Your task to perform on an android device: turn off javascript in the chrome app Image 0: 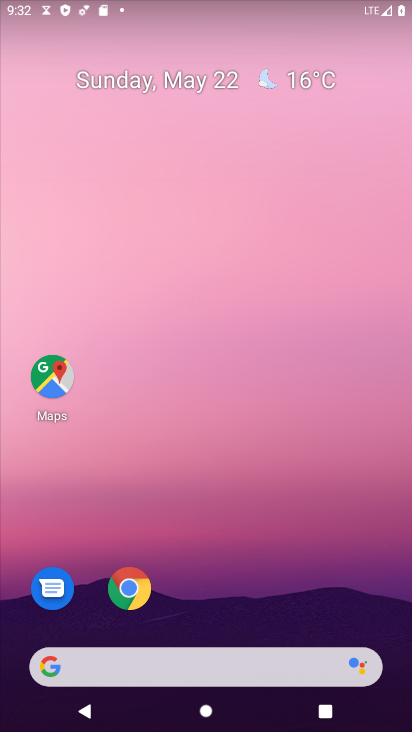
Step 0: click (128, 604)
Your task to perform on an android device: turn off javascript in the chrome app Image 1: 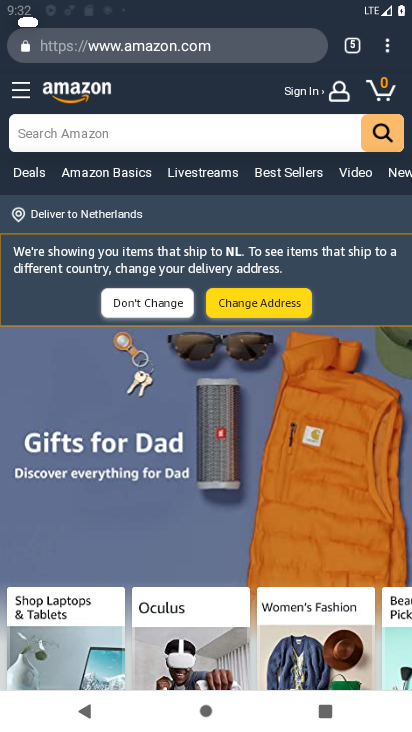
Step 1: click (390, 48)
Your task to perform on an android device: turn off javascript in the chrome app Image 2: 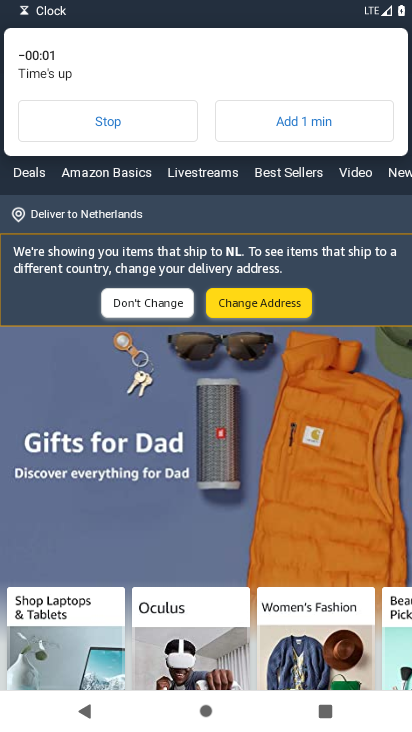
Step 2: click (151, 124)
Your task to perform on an android device: turn off javascript in the chrome app Image 3: 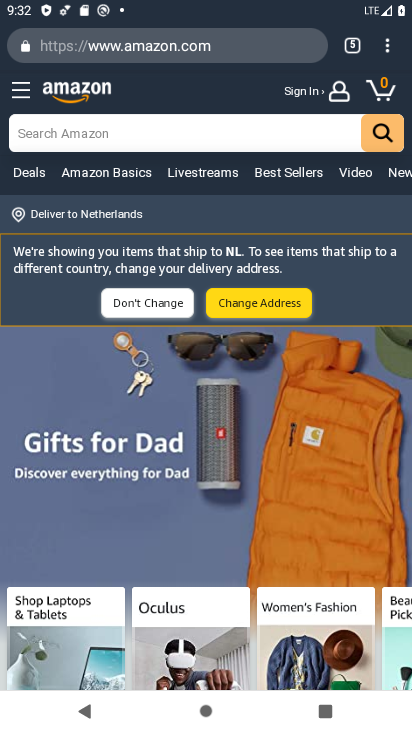
Step 3: click (376, 40)
Your task to perform on an android device: turn off javascript in the chrome app Image 4: 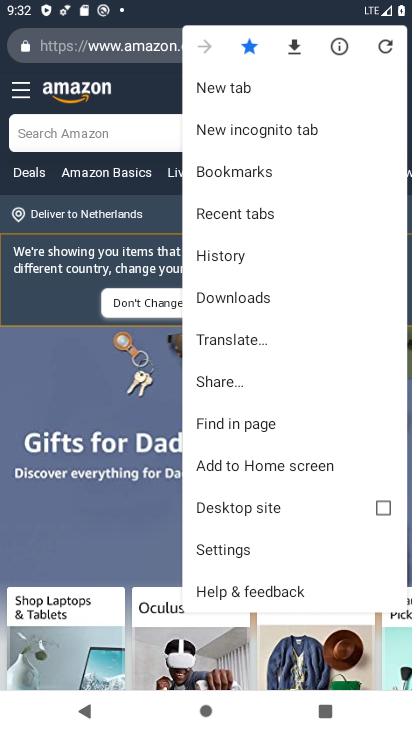
Step 4: click (249, 542)
Your task to perform on an android device: turn off javascript in the chrome app Image 5: 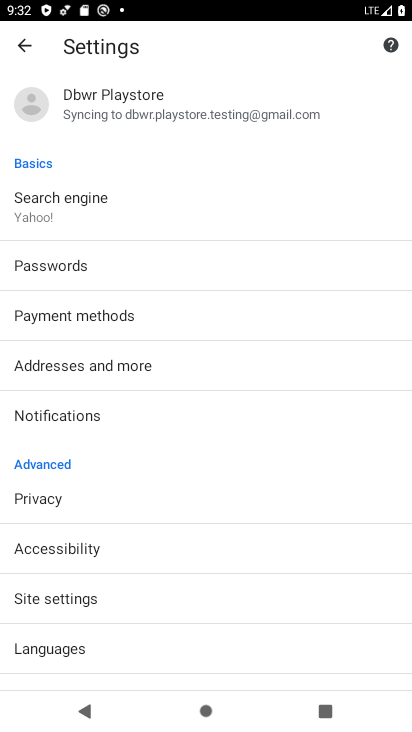
Step 5: click (159, 603)
Your task to perform on an android device: turn off javascript in the chrome app Image 6: 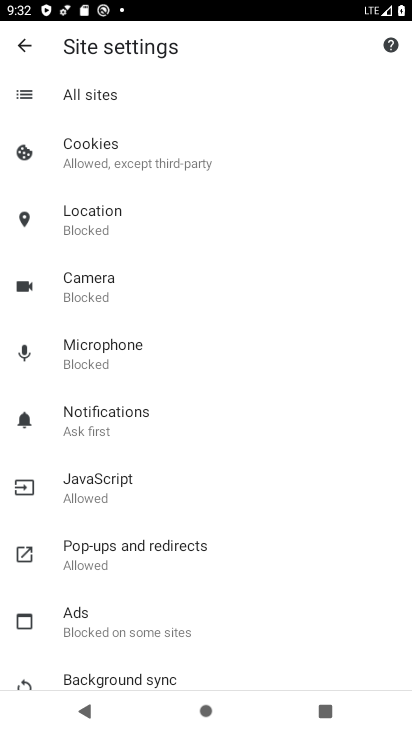
Step 6: click (56, 482)
Your task to perform on an android device: turn off javascript in the chrome app Image 7: 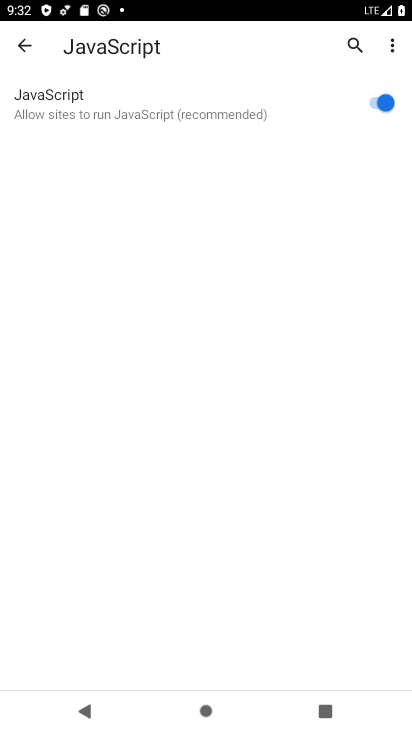
Step 7: click (376, 103)
Your task to perform on an android device: turn off javascript in the chrome app Image 8: 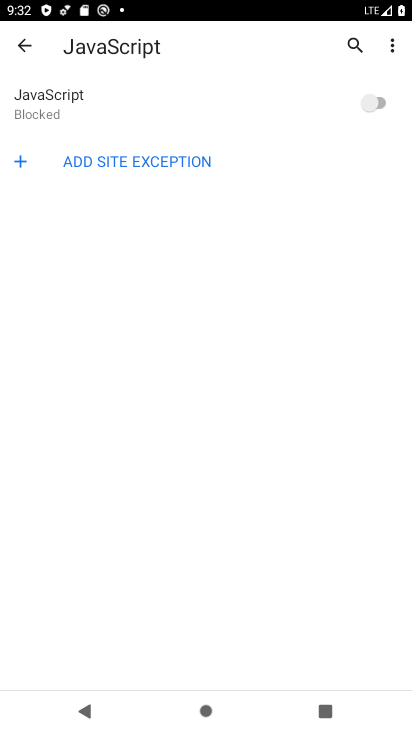
Step 8: task complete